Your task to perform on an android device: Open notification settings Image 0: 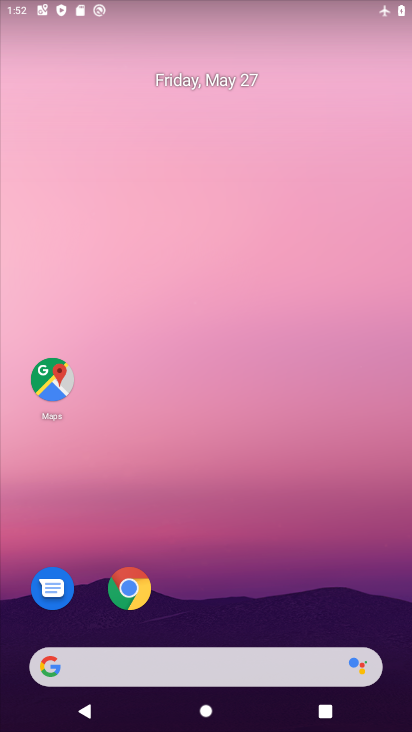
Step 0: drag from (393, 609) to (373, 186)
Your task to perform on an android device: Open notification settings Image 1: 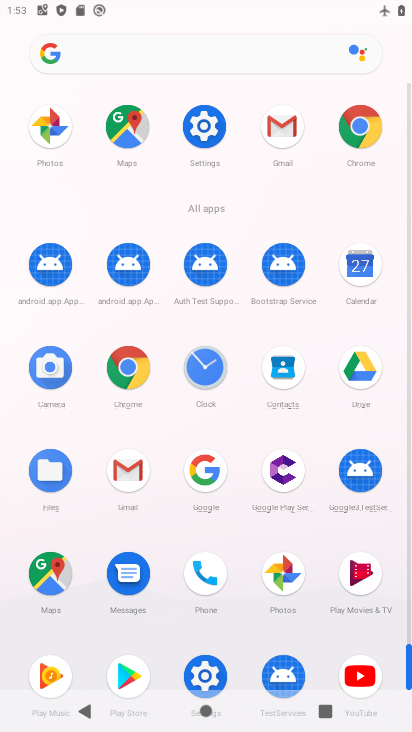
Step 1: click (209, 678)
Your task to perform on an android device: Open notification settings Image 2: 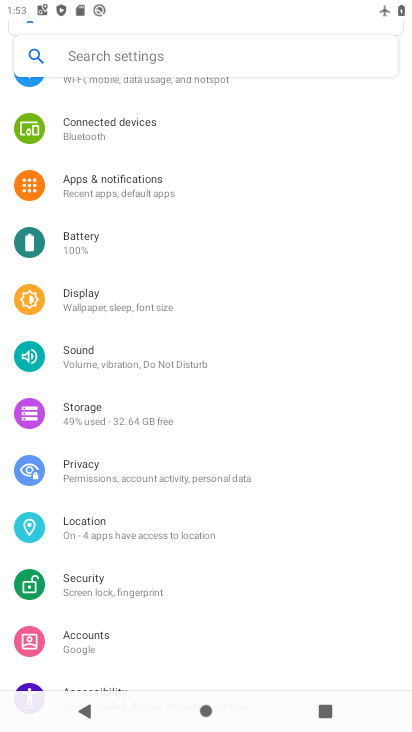
Step 2: click (131, 180)
Your task to perform on an android device: Open notification settings Image 3: 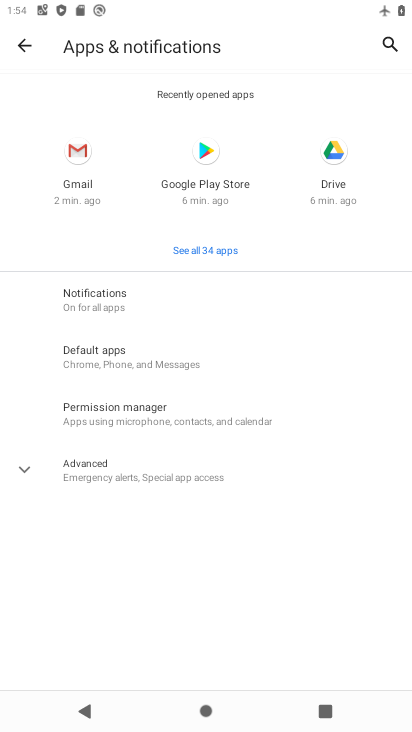
Step 3: click (105, 298)
Your task to perform on an android device: Open notification settings Image 4: 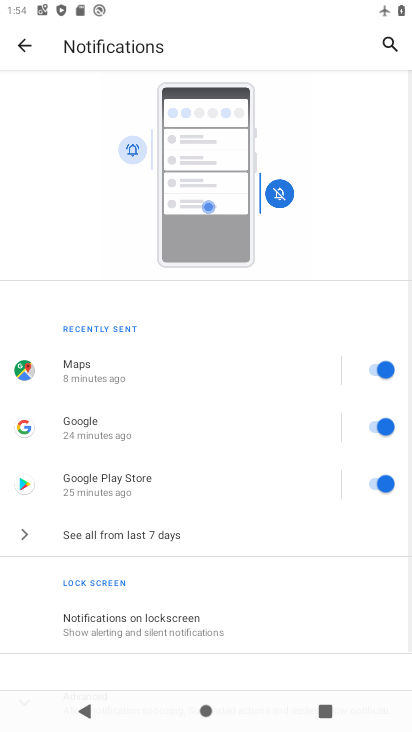
Step 4: task complete